Your task to perform on an android device: Go to eBay Image 0: 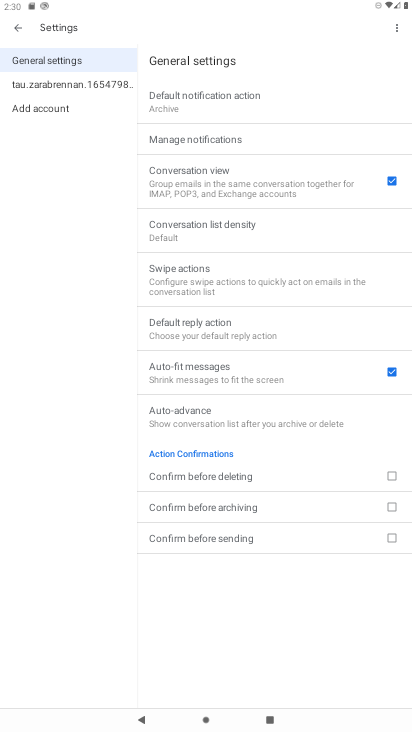
Step 0: press home button
Your task to perform on an android device: Go to eBay Image 1: 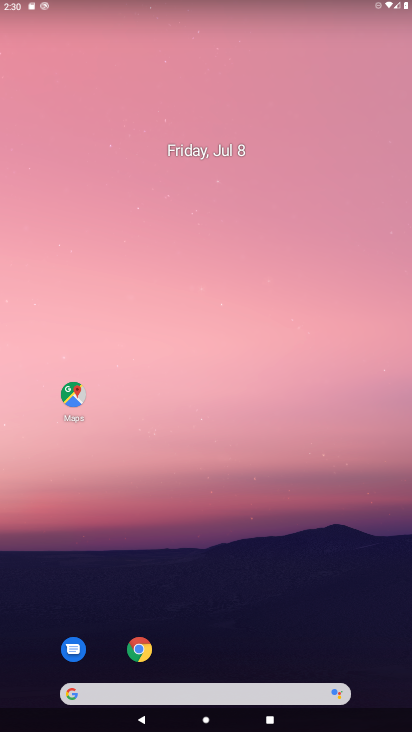
Step 1: click (136, 648)
Your task to perform on an android device: Go to eBay Image 2: 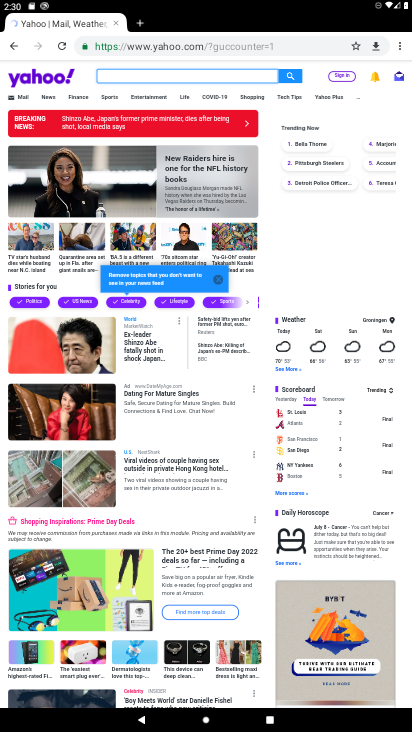
Step 2: click (240, 45)
Your task to perform on an android device: Go to eBay Image 3: 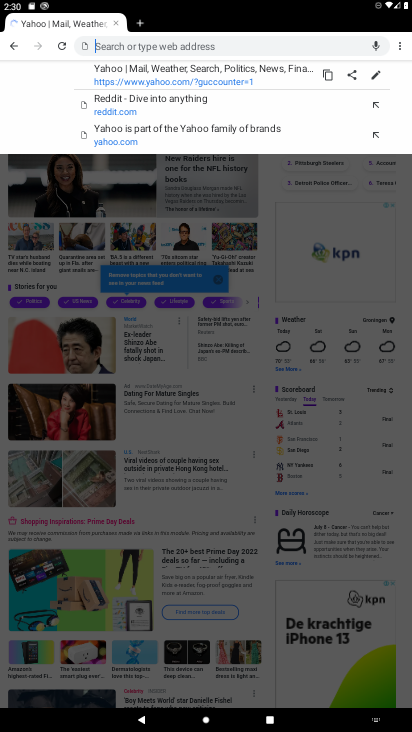
Step 3: type "eBay"
Your task to perform on an android device: Go to eBay Image 4: 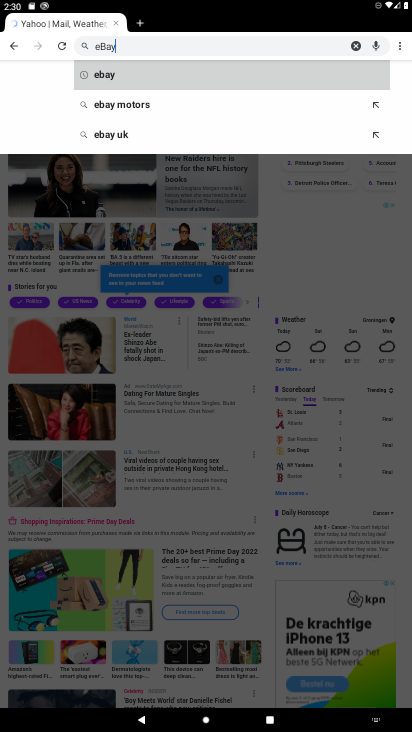
Step 4: click (111, 74)
Your task to perform on an android device: Go to eBay Image 5: 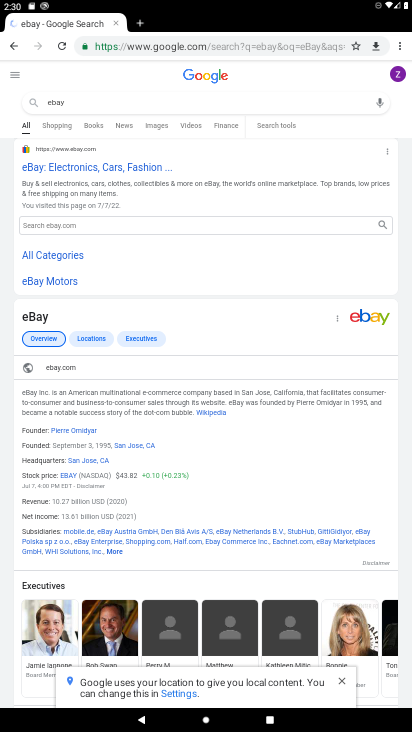
Step 5: click (79, 162)
Your task to perform on an android device: Go to eBay Image 6: 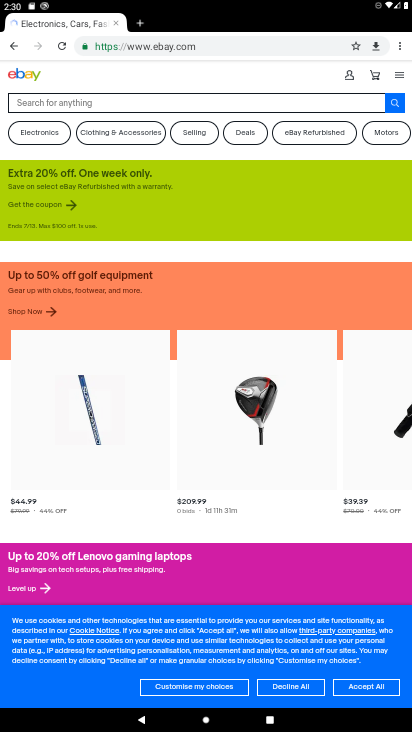
Step 6: task complete